Your task to perform on an android device: View the shopping cart on costco.com. Image 0: 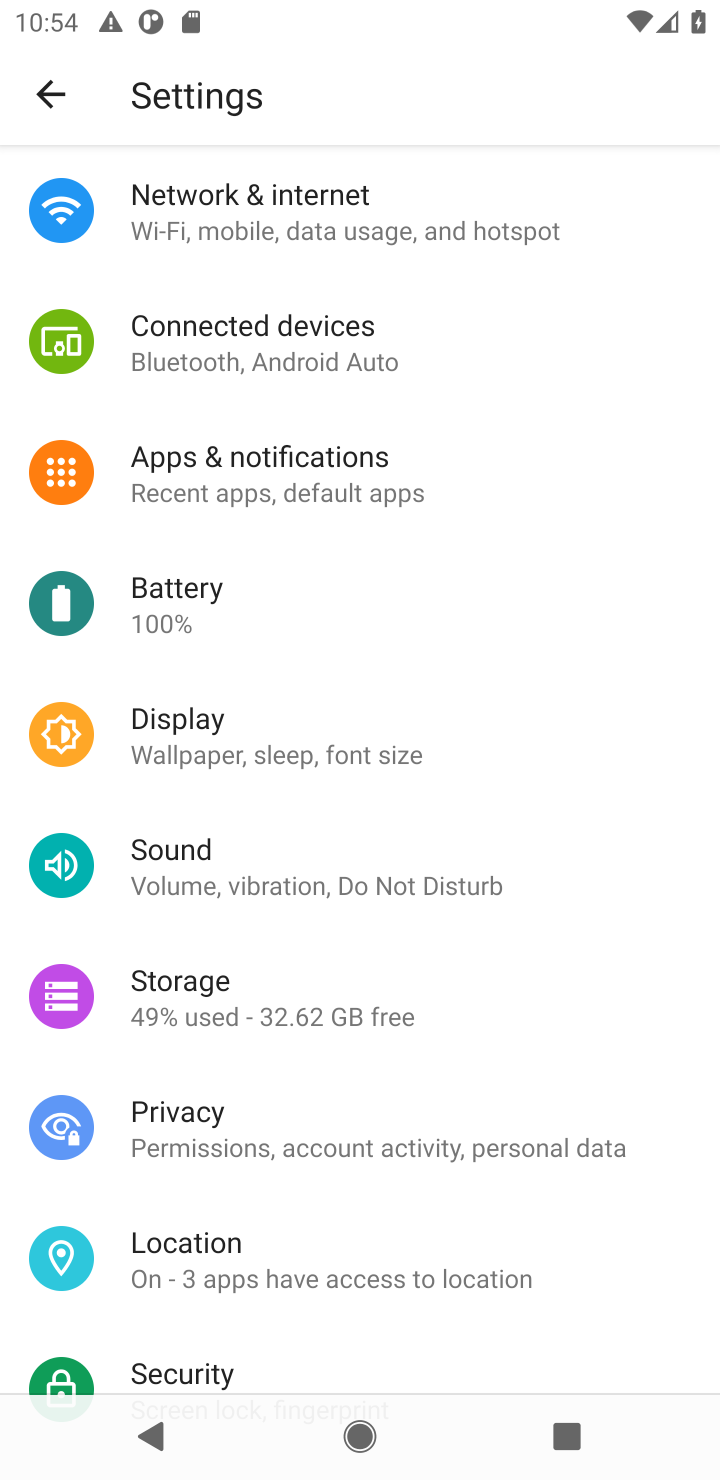
Step 0: press home button
Your task to perform on an android device: View the shopping cart on costco.com. Image 1: 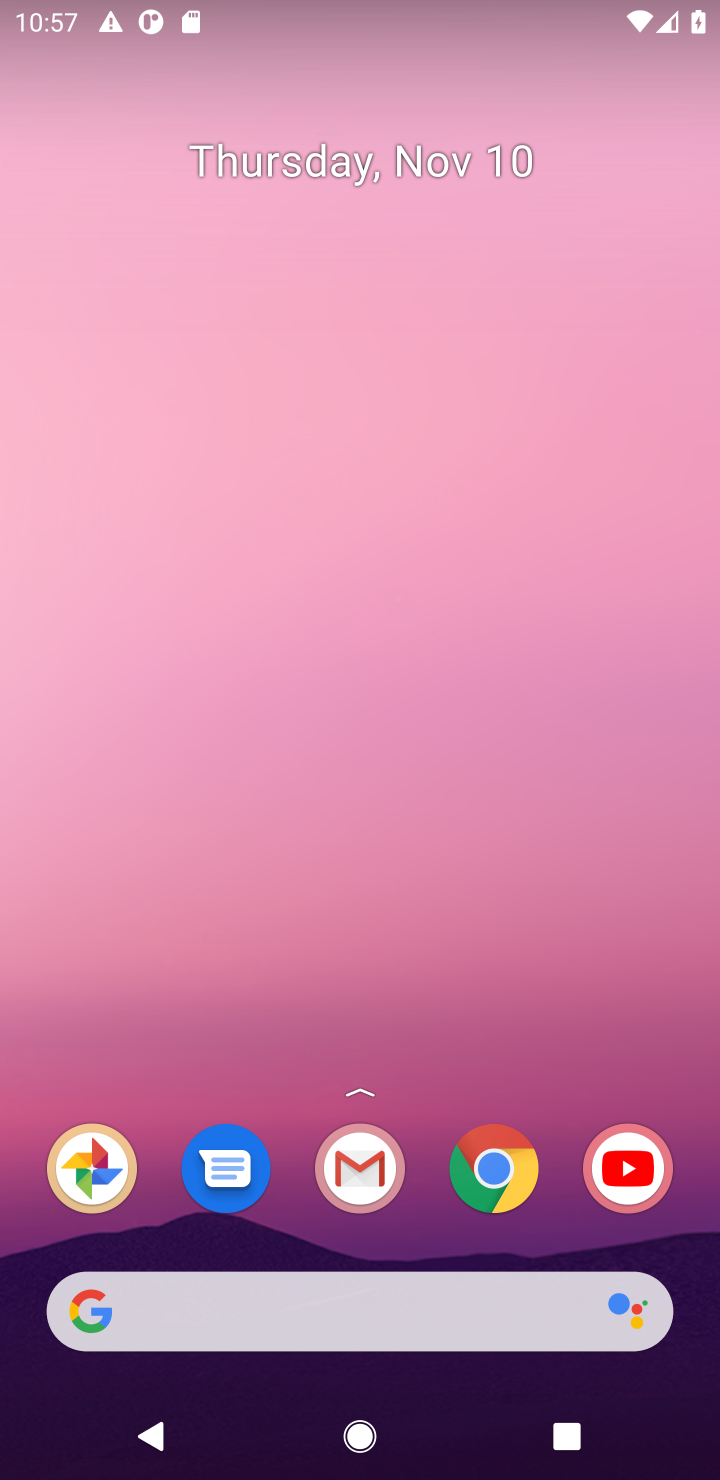
Step 1: click (507, 1182)
Your task to perform on an android device: View the shopping cart on costco.com. Image 2: 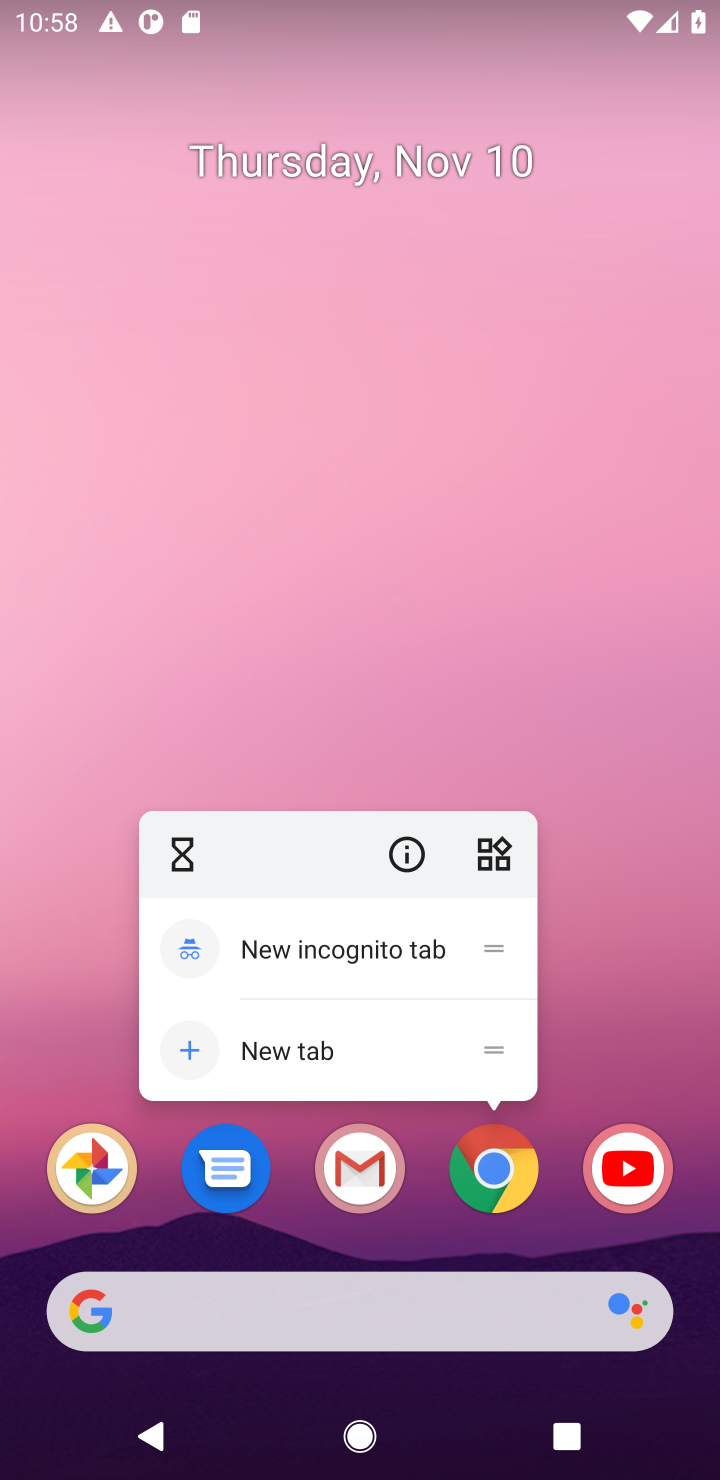
Step 2: click (507, 1182)
Your task to perform on an android device: View the shopping cart on costco.com. Image 3: 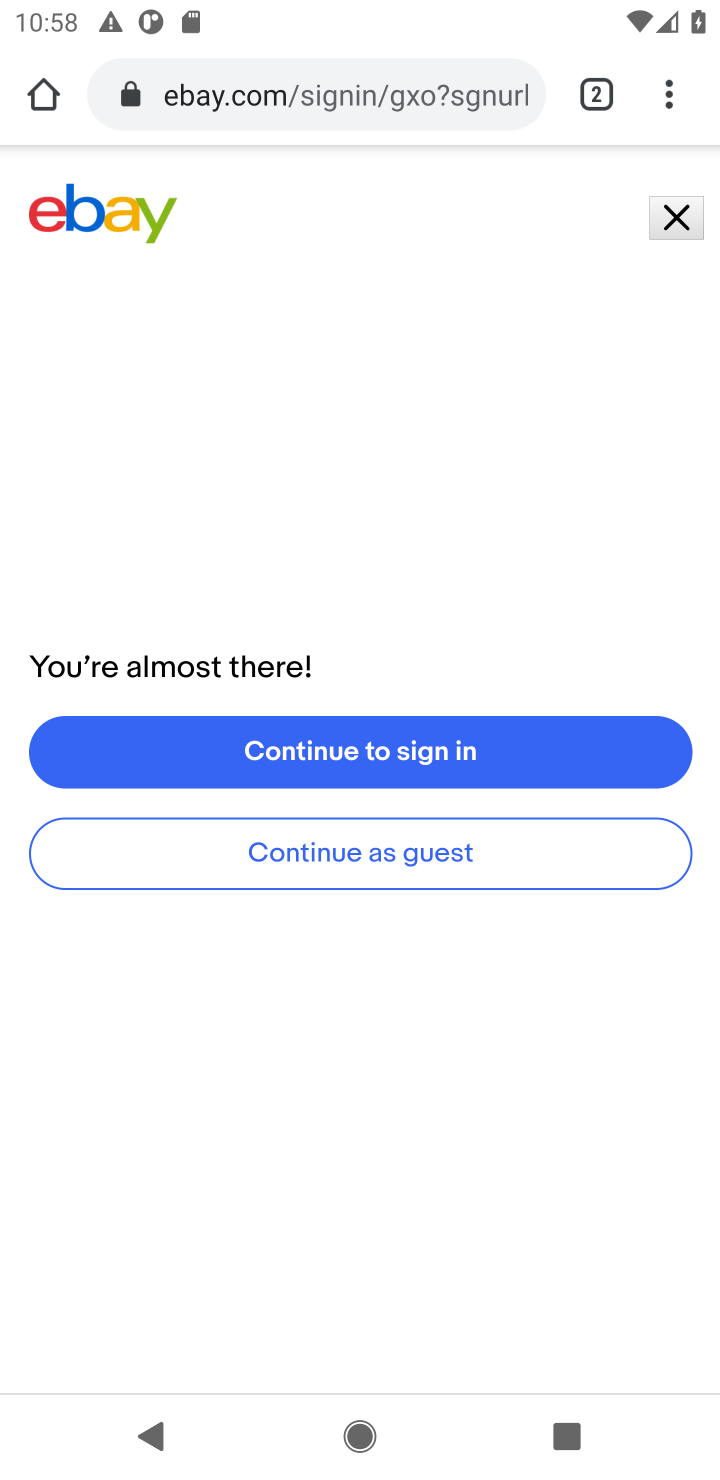
Step 3: click (313, 122)
Your task to perform on an android device: View the shopping cart on costco.com. Image 4: 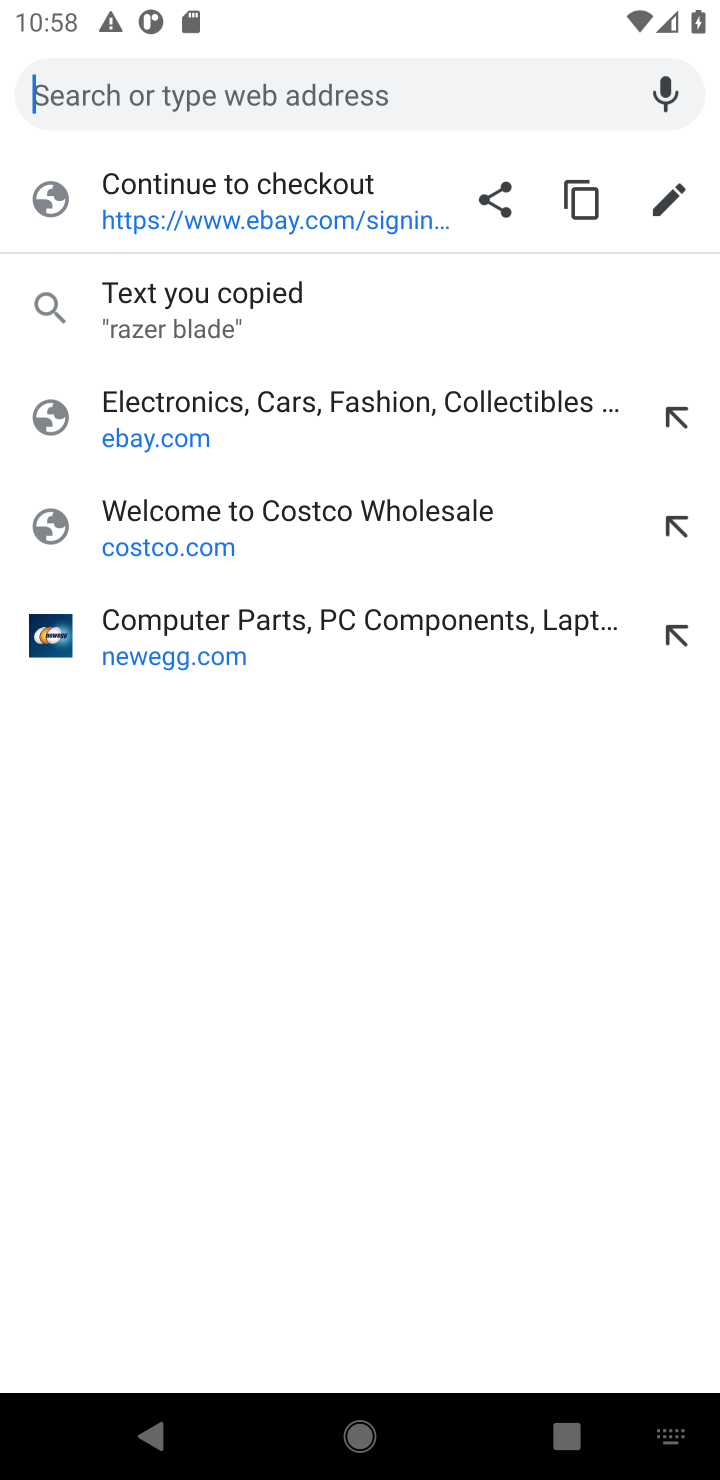
Step 4: click (190, 546)
Your task to perform on an android device: View the shopping cart on costco.com. Image 5: 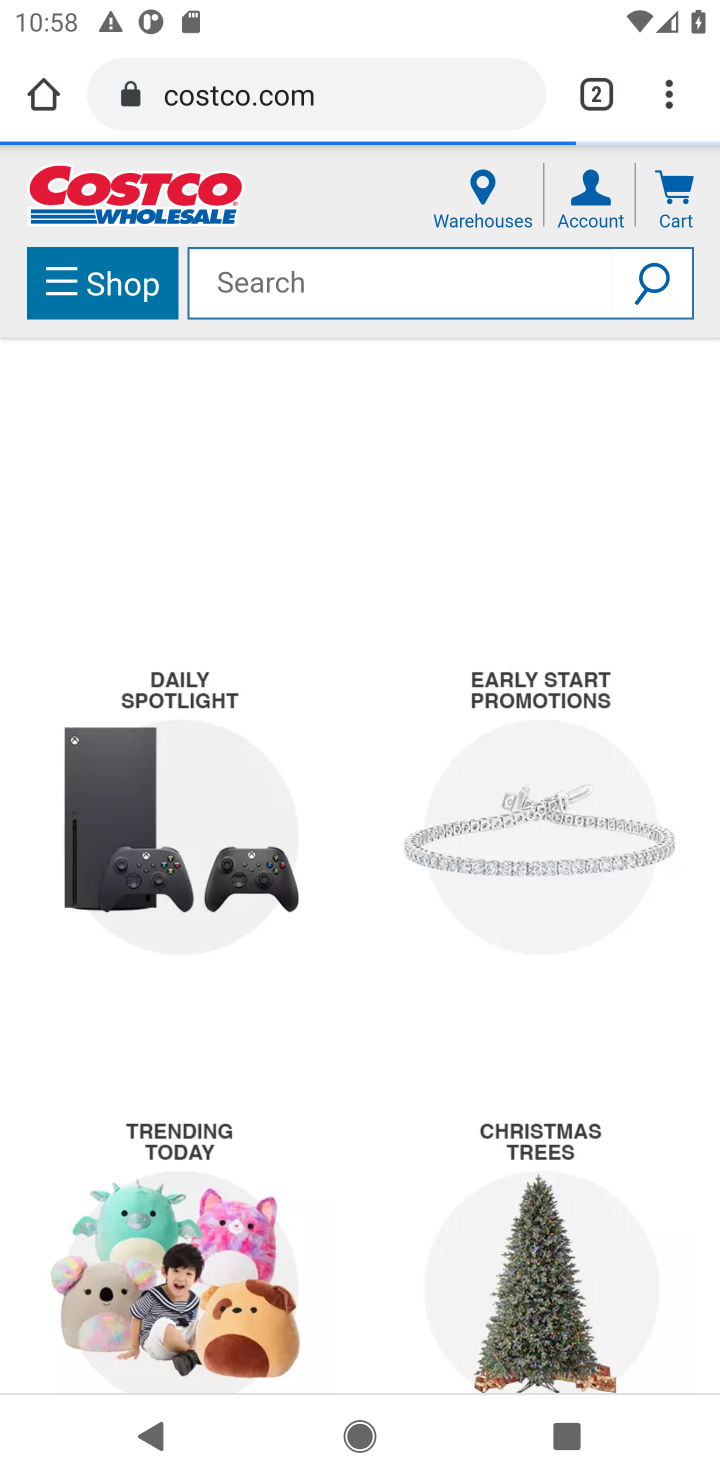
Step 5: click (670, 199)
Your task to perform on an android device: View the shopping cart on costco.com. Image 6: 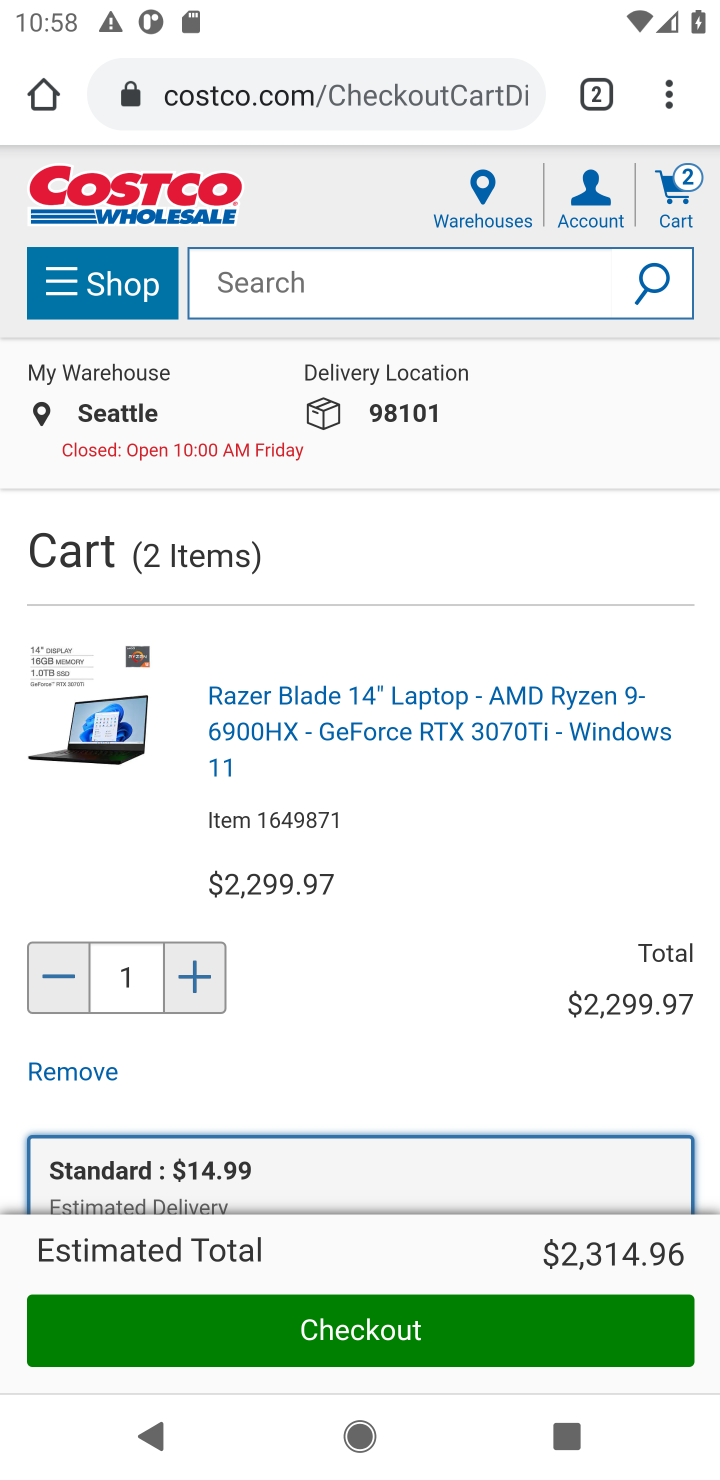
Step 6: task complete